Your task to perform on an android device: Open Android settings Image 0: 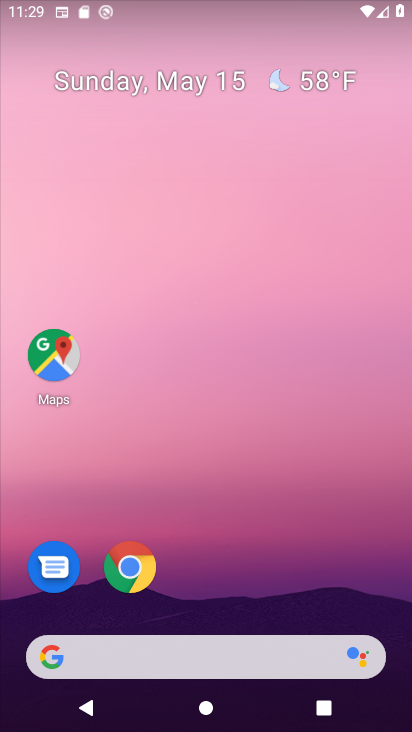
Step 0: drag from (179, 595) to (187, 122)
Your task to perform on an android device: Open Android settings Image 1: 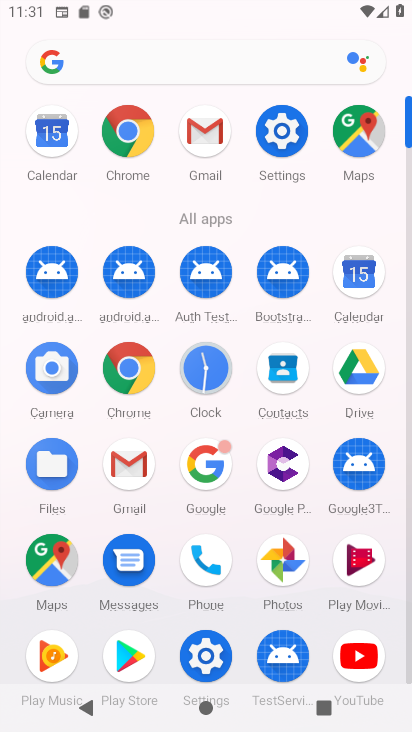
Step 1: click (287, 125)
Your task to perform on an android device: Open Android settings Image 2: 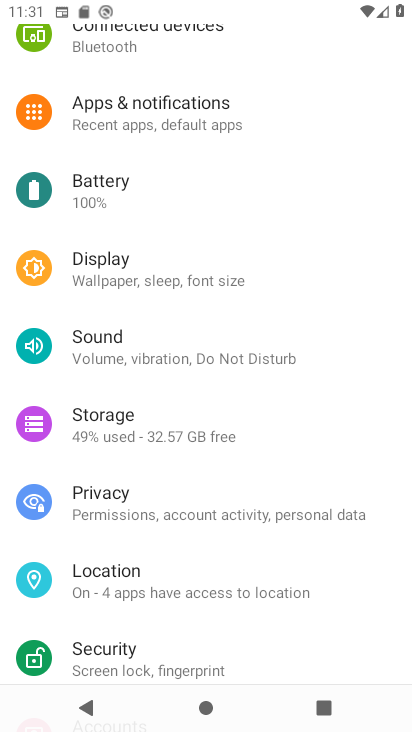
Step 2: task complete